Your task to perform on an android device: Check the news Image 0: 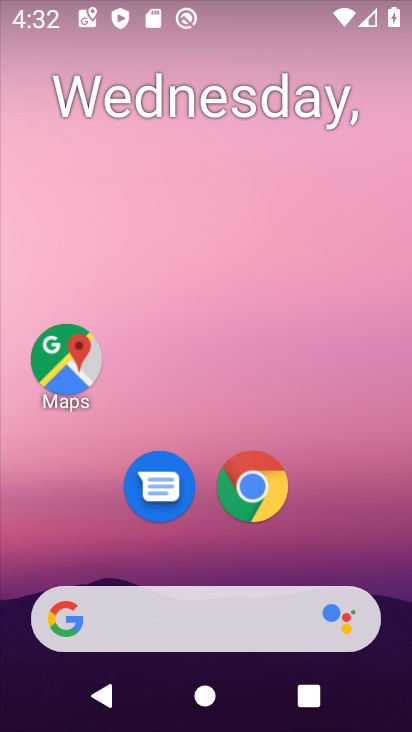
Step 0: drag from (204, 624) to (240, 33)
Your task to perform on an android device: Check the news Image 1: 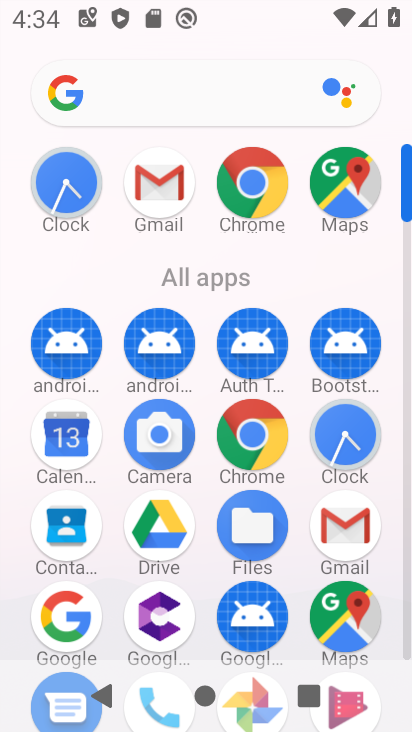
Step 1: click (65, 618)
Your task to perform on an android device: Check the news Image 2: 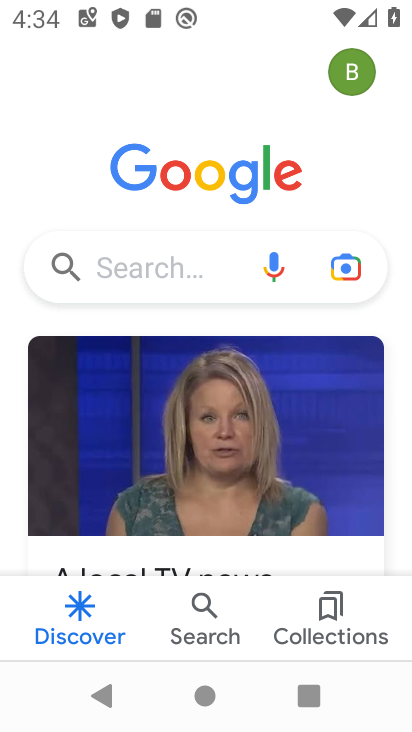
Step 2: click (148, 268)
Your task to perform on an android device: Check the news Image 3: 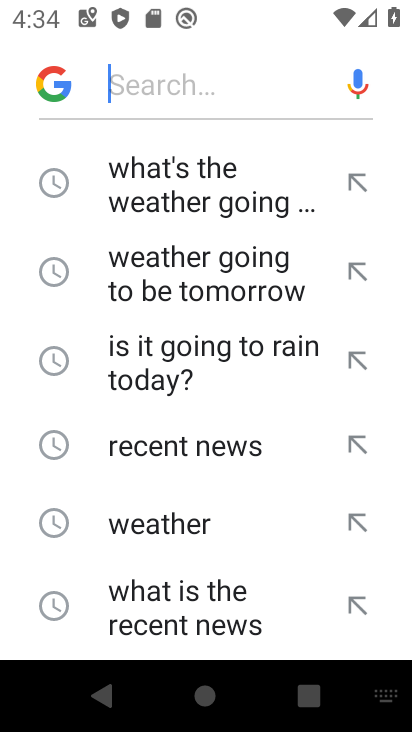
Step 3: click (194, 446)
Your task to perform on an android device: Check the news Image 4: 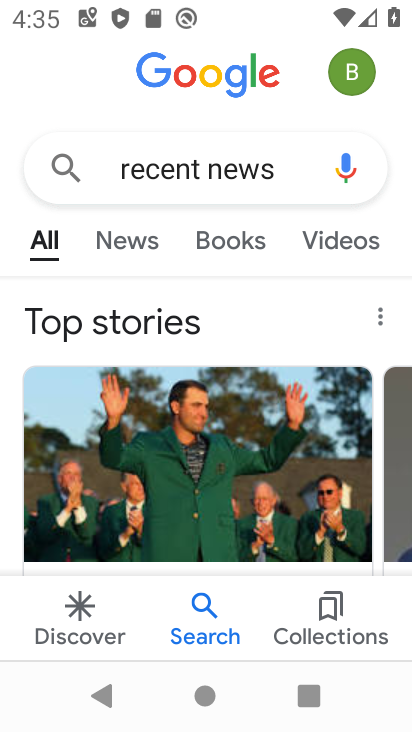
Step 4: click (94, 238)
Your task to perform on an android device: Check the news Image 5: 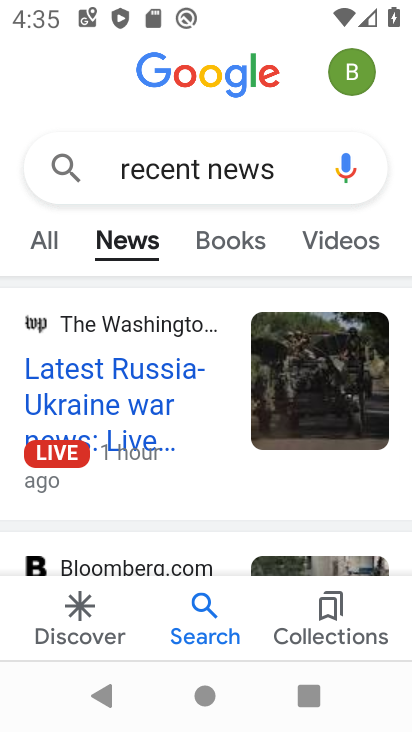
Step 5: task complete